Your task to perform on an android device: turn on wifi Image 0: 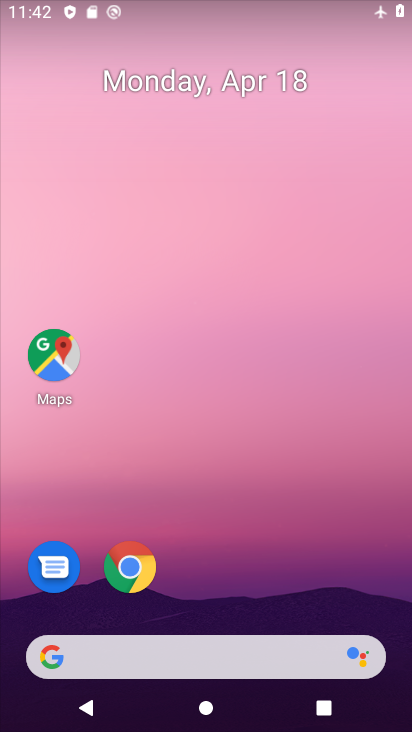
Step 0: drag from (358, 578) to (320, 189)
Your task to perform on an android device: turn on wifi Image 1: 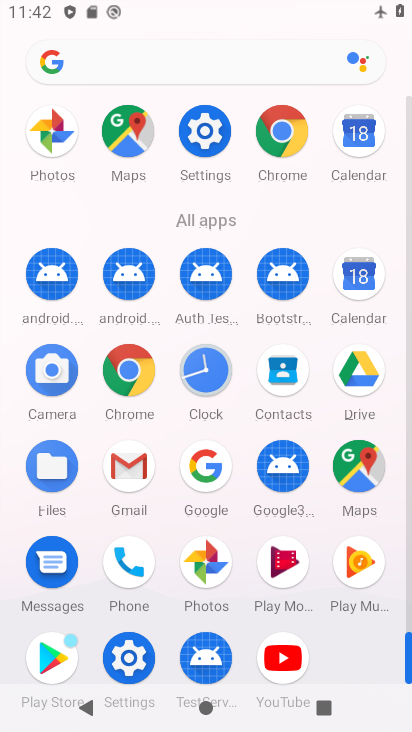
Step 1: click (128, 658)
Your task to perform on an android device: turn on wifi Image 2: 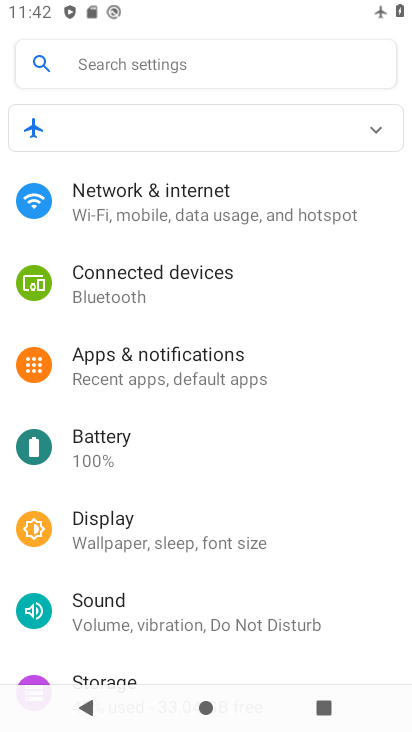
Step 2: click (143, 193)
Your task to perform on an android device: turn on wifi Image 3: 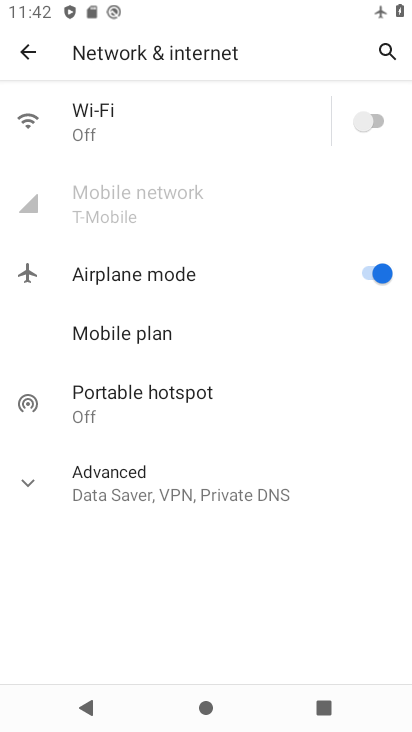
Step 3: click (373, 119)
Your task to perform on an android device: turn on wifi Image 4: 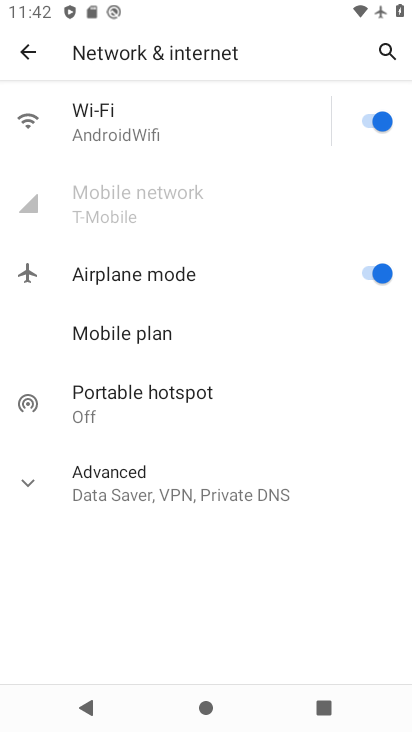
Step 4: task complete